Your task to perform on an android device: Go to battery settings Image 0: 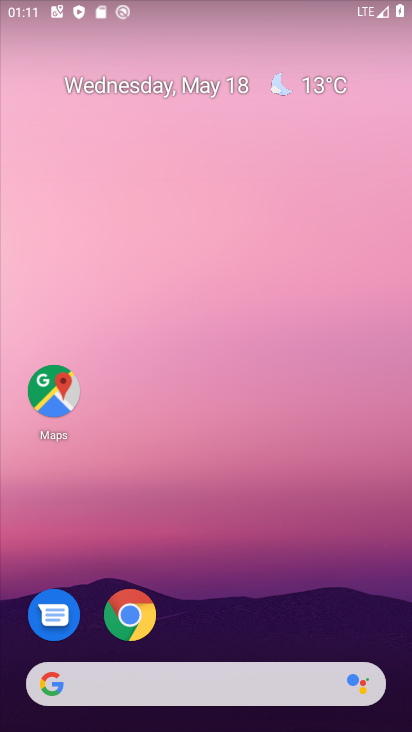
Step 0: press home button
Your task to perform on an android device: Go to battery settings Image 1: 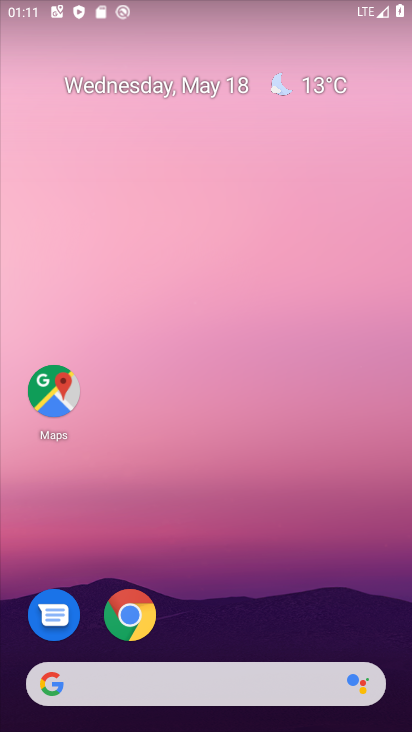
Step 1: drag from (123, 687) to (342, 119)
Your task to perform on an android device: Go to battery settings Image 2: 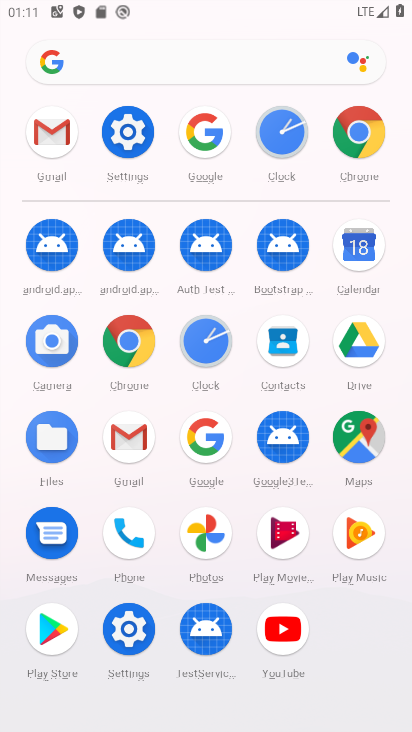
Step 2: click (131, 141)
Your task to perform on an android device: Go to battery settings Image 3: 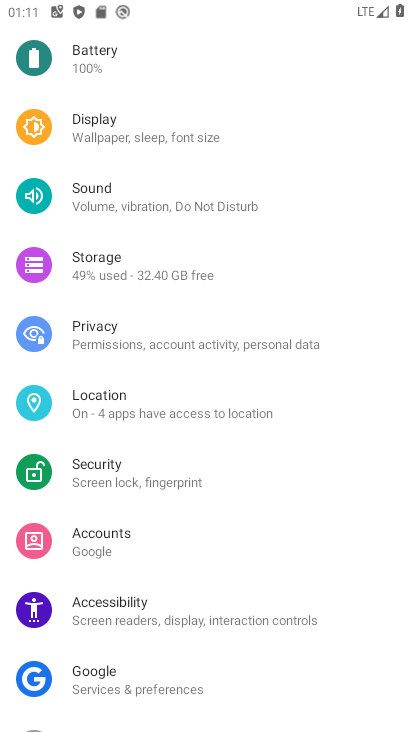
Step 3: click (90, 61)
Your task to perform on an android device: Go to battery settings Image 4: 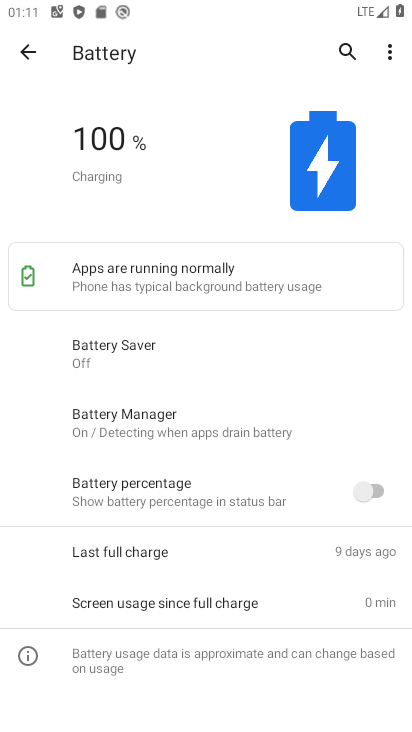
Step 4: task complete